Your task to perform on an android device: turn on improve location accuracy Image 0: 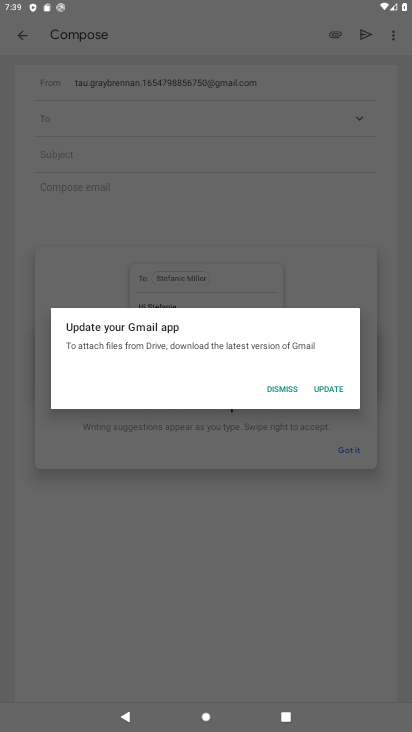
Step 0: press home button
Your task to perform on an android device: turn on improve location accuracy Image 1: 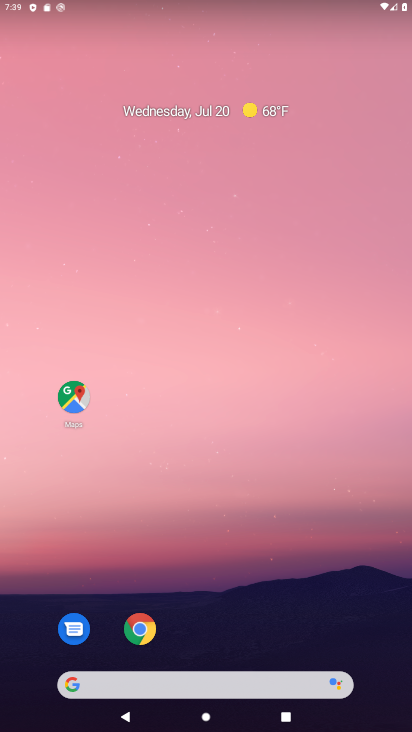
Step 1: drag from (336, 626) to (332, 275)
Your task to perform on an android device: turn on improve location accuracy Image 2: 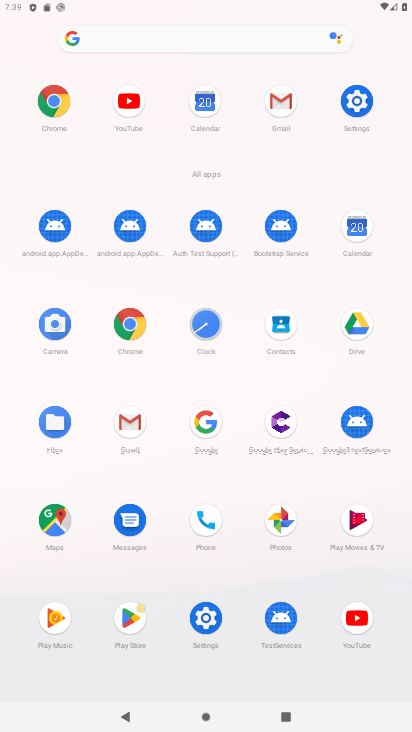
Step 2: click (357, 114)
Your task to perform on an android device: turn on improve location accuracy Image 3: 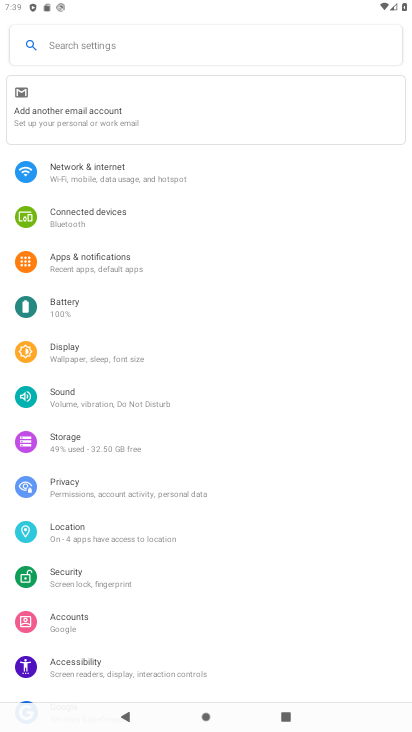
Step 3: drag from (348, 432) to (348, 327)
Your task to perform on an android device: turn on improve location accuracy Image 4: 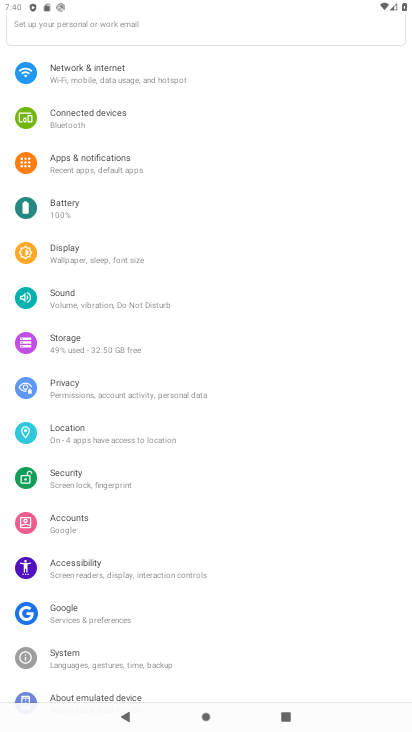
Step 4: drag from (326, 427) to (317, 261)
Your task to perform on an android device: turn on improve location accuracy Image 5: 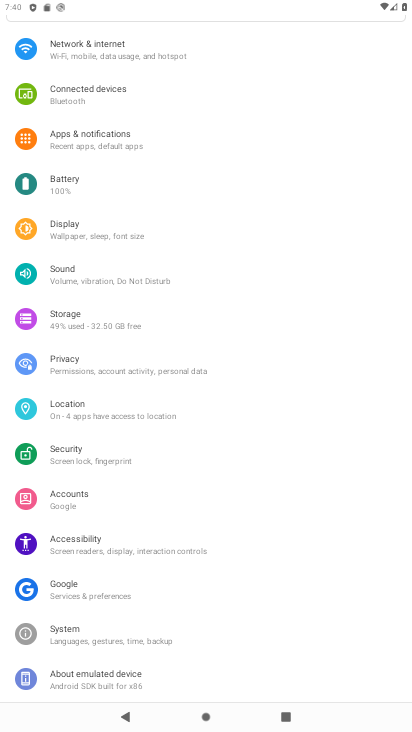
Step 5: click (225, 419)
Your task to perform on an android device: turn on improve location accuracy Image 6: 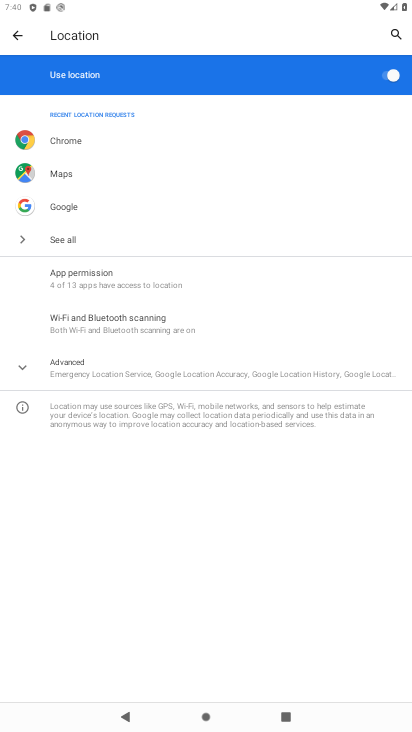
Step 6: click (207, 368)
Your task to perform on an android device: turn on improve location accuracy Image 7: 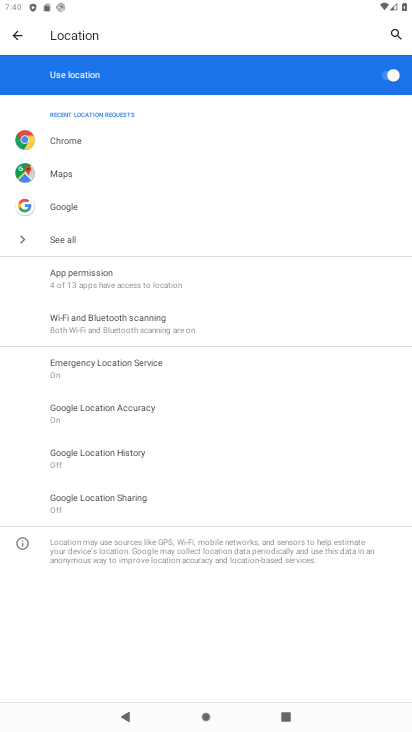
Step 7: click (101, 404)
Your task to perform on an android device: turn on improve location accuracy Image 8: 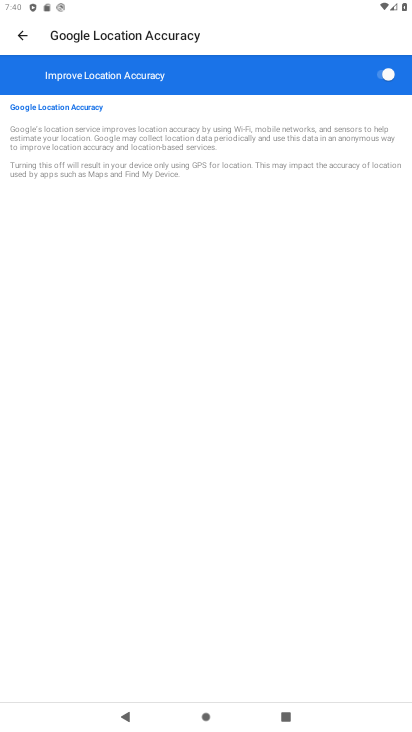
Step 8: task complete